Your task to perform on an android device: Go to Yahoo.com Image 0: 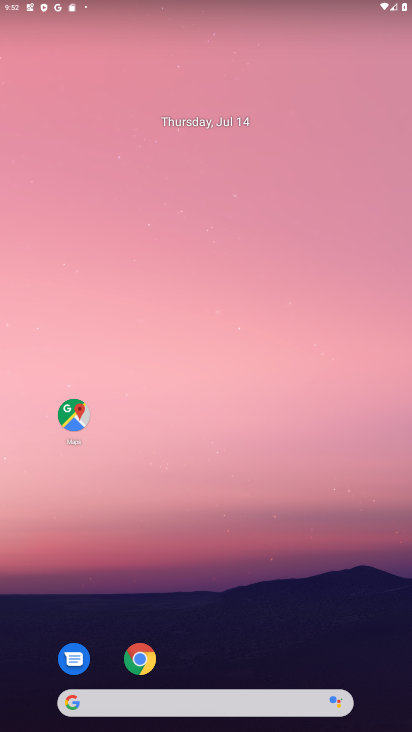
Step 0: click (140, 658)
Your task to perform on an android device: Go to Yahoo.com Image 1: 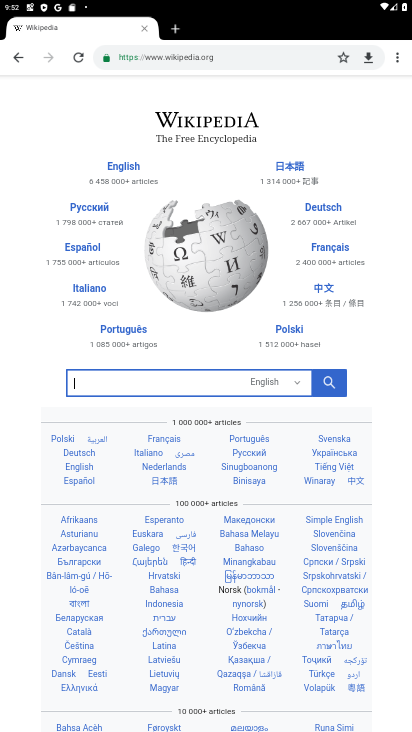
Step 1: click (186, 67)
Your task to perform on an android device: Go to Yahoo.com Image 2: 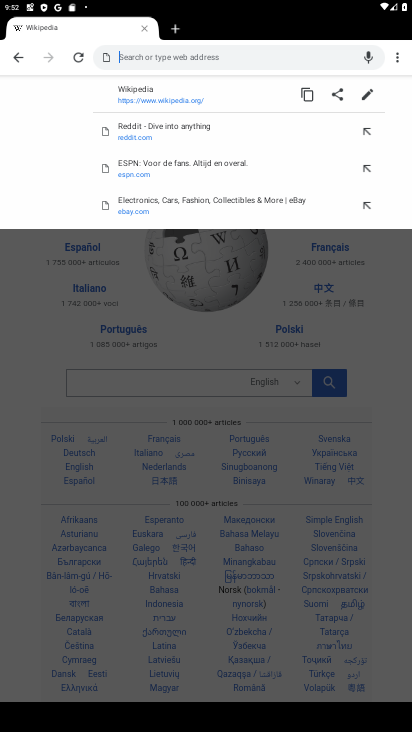
Step 2: type "yahoo.com"
Your task to perform on an android device: Go to Yahoo.com Image 3: 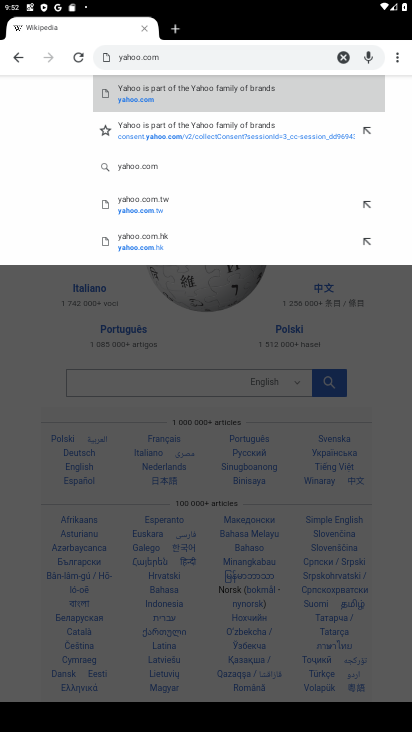
Step 3: click (140, 102)
Your task to perform on an android device: Go to Yahoo.com Image 4: 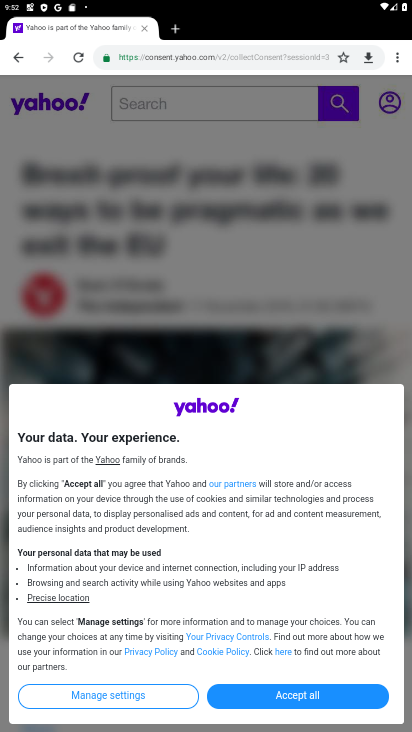
Step 4: task complete